Your task to perform on an android device: clear all cookies in the chrome app Image 0: 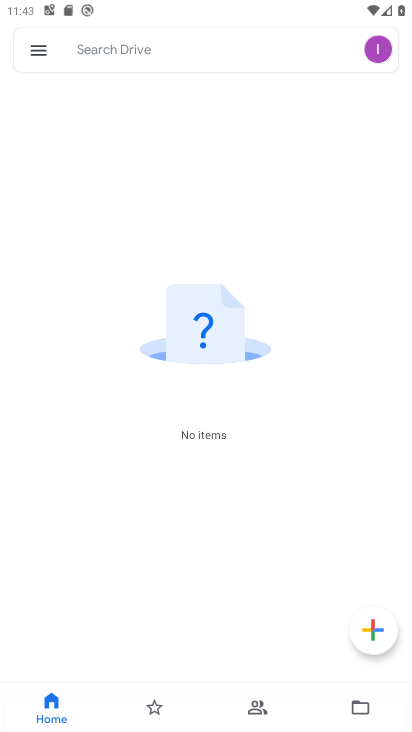
Step 0: press home button
Your task to perform on an android device: clear all cookies in the chrome app Image 1: 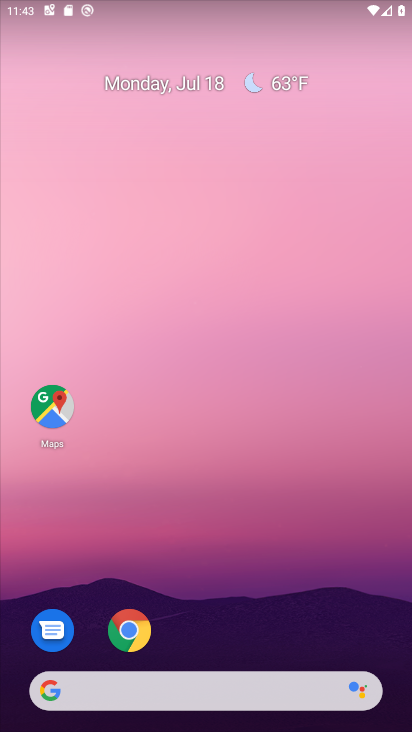
Step 1: click (138, 633)
Your task to perform on an android device: clear all cookies in the chrome app Image 2: 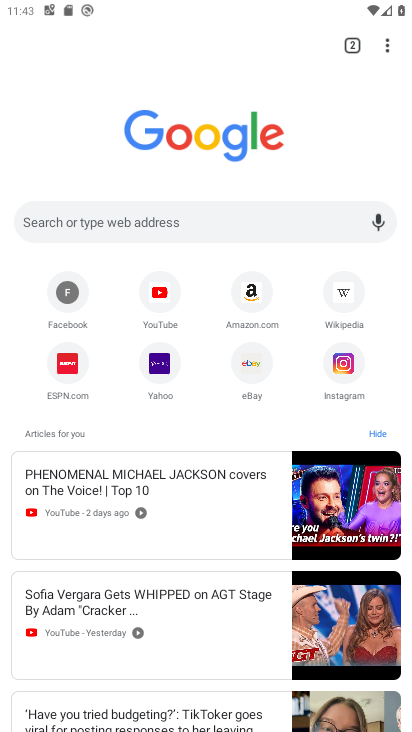
Step 2: click (383, 49)
Your task to perform on an android device: clear all cookies in the chrome app Image 3: 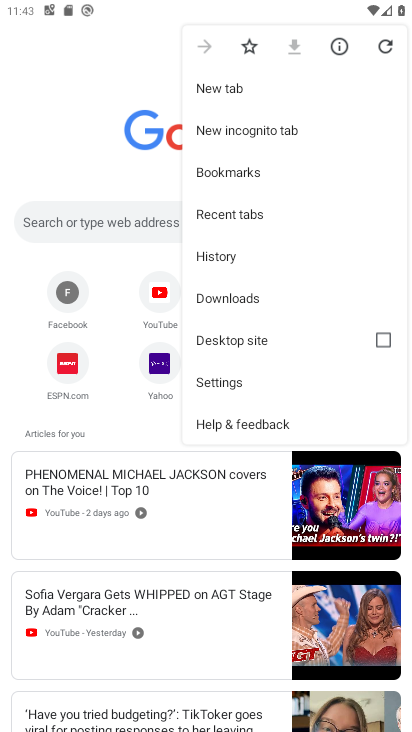
Step 3: click (238, 381)
Your task to perform on an android device: clear all cookies in the chrome app Image 4: 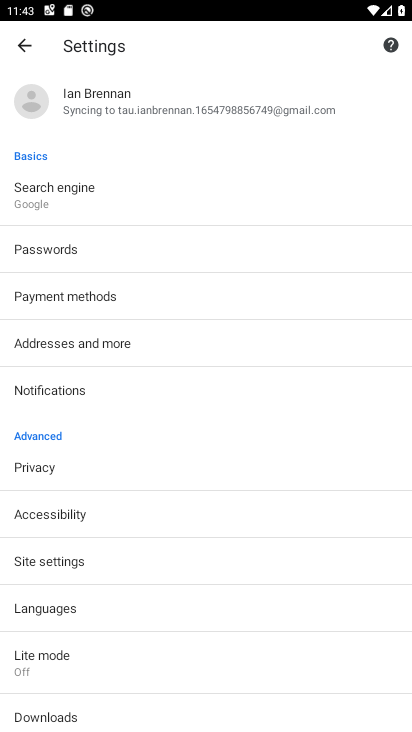
Step 4: click (54, 560)
Your task to perform on an android device: clear all cookies in the chrome app Image 5: 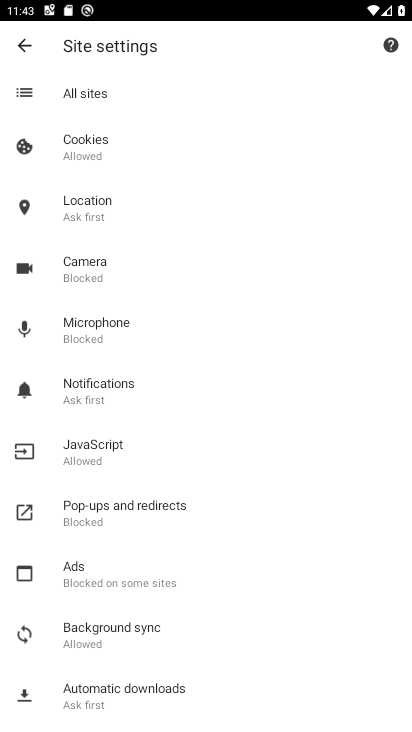
Step 5: click (105, 155)
Your task to perform on an android device: clear all cookies in the chrome app Image 6: 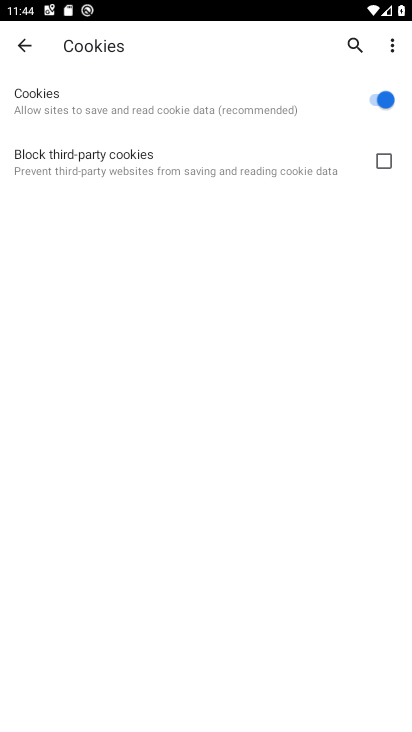
Step 6: task complete